Your task to perform on an android device: Open Chrome and go to settings Image 0: 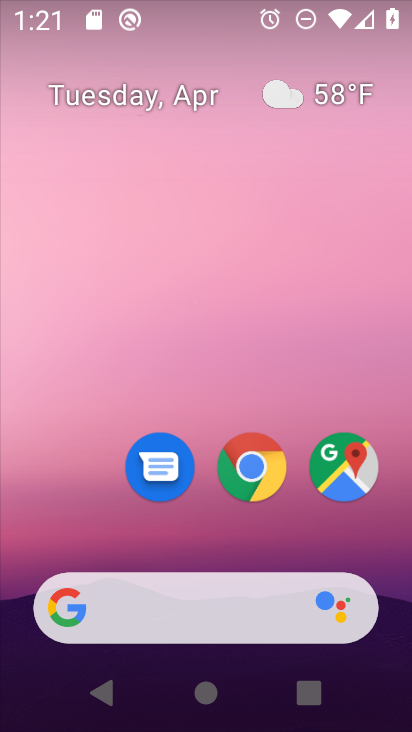
Step 0: click (250, 458)
Your task to perform on an android device: Open Chrome and go to settings Image 1: 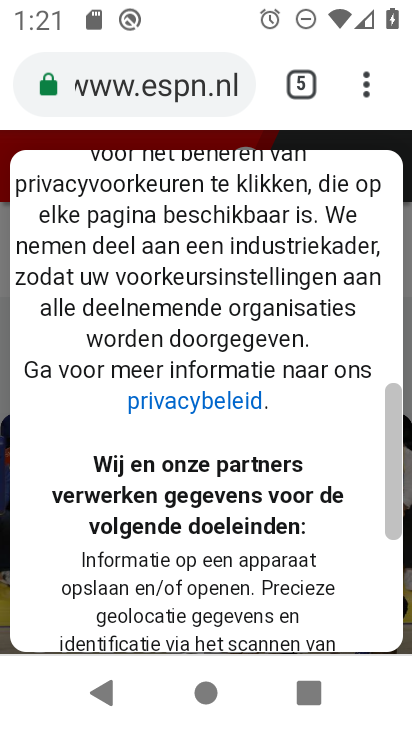
Step 1: click (359, 78)
Your task to perform on an android device: Open Chrome and go to settings Image 2: 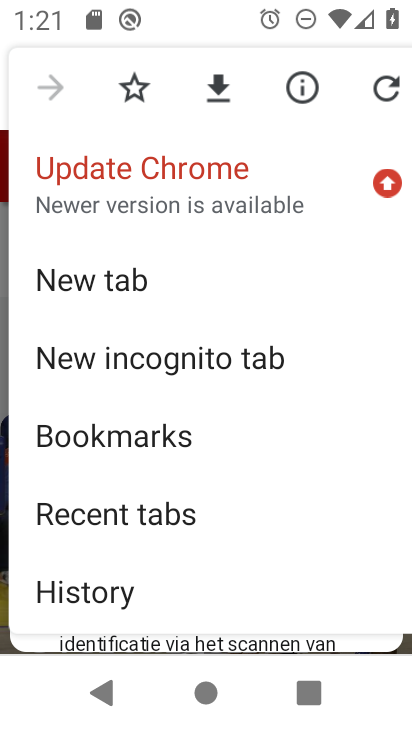
Step 2: drag from (163, 519) to (193, 442)
Your task to perform on an android device: Open Chrome and go to settings Image 3: 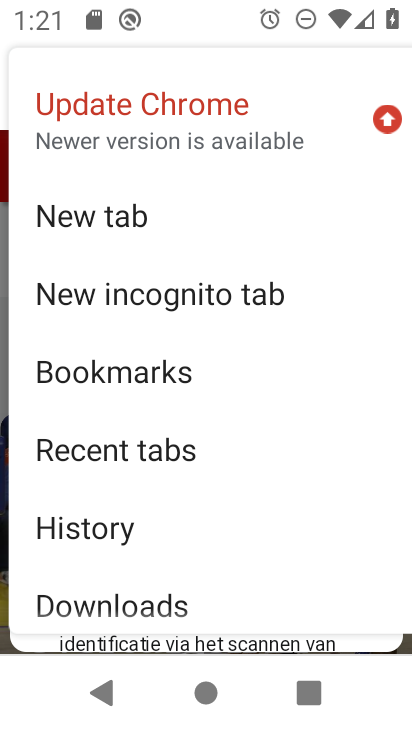
Step 3: drag from (116, 624) to (109, 123)
Your task to perform on an android device: Open Chrome and go to settings Image 4: 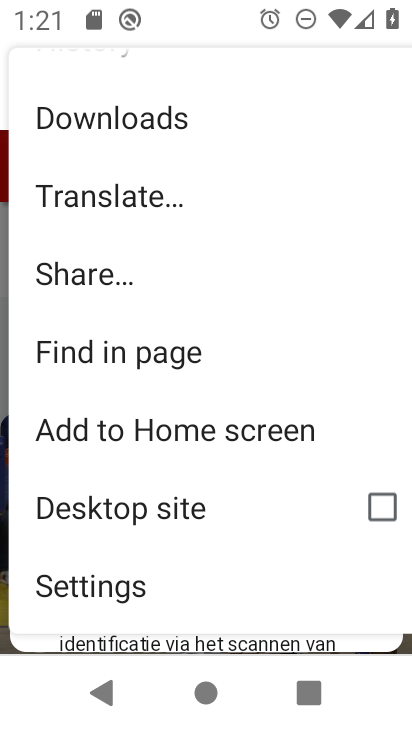
Step 4: click (98, 573)
Your task to perform on an android device: Open Chrome and go to settings Image 5: 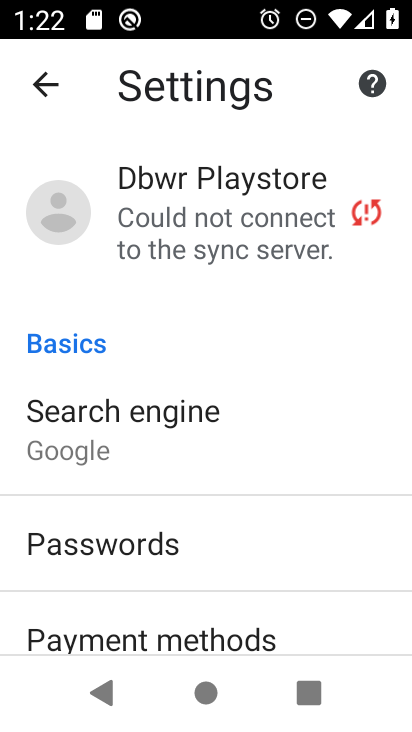
Step 5: task complete